Your task to perform on an android device: stop showing notifications on the lock screen Image 0: 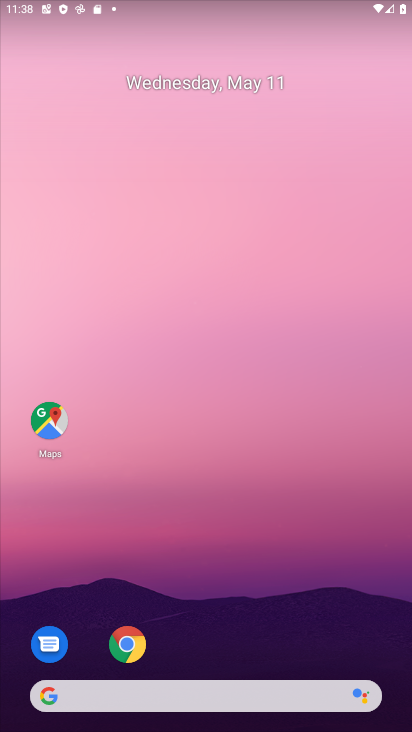
Step 0: drag from (273, 664) to (255, 155)
Your task to perform on an android device: stop showing notifications on the lock screen Image 1: 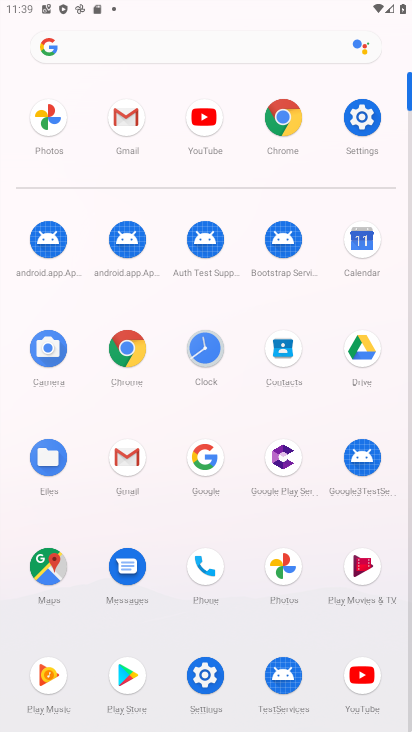
Step 1: click (353, 141)
Your task to perform on an android device: stop showing notifications on the lock screen Image 2: 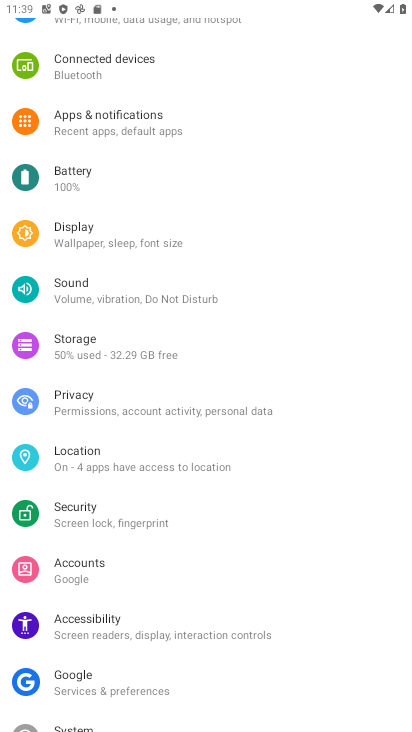
Step 2: click (178, 466)
Your task to perform on an android device: stop showing notifications on the lock screen Image 3: 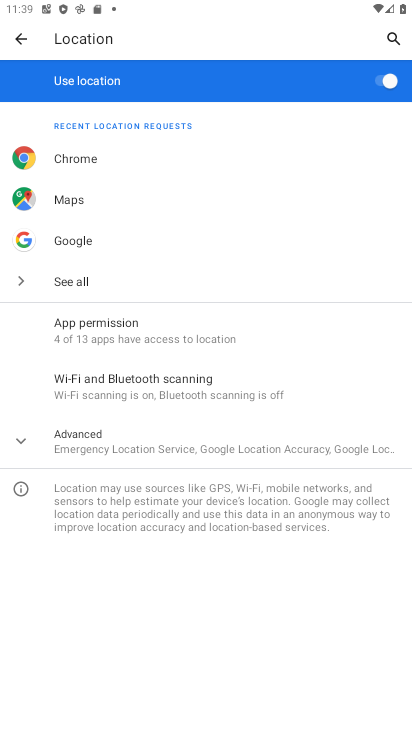
Step 3: click (143, 427)
Your task to perform on an android device: stop showing notifications on the lock screen Image 4: 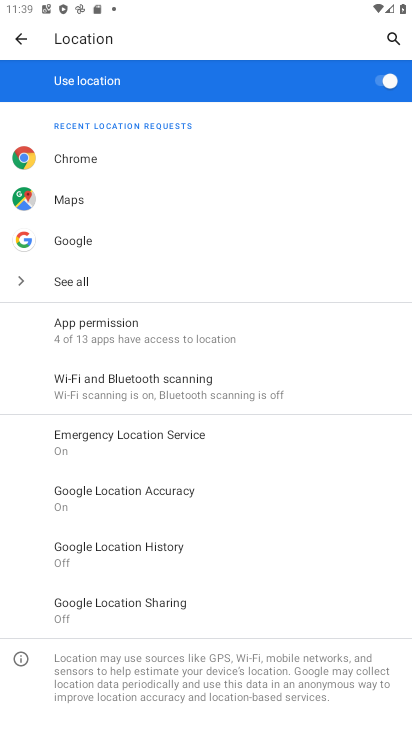
Step 4: click (27, 55)
Your task to perform on an android device: stop showing notifications on the lock screen Image 5: 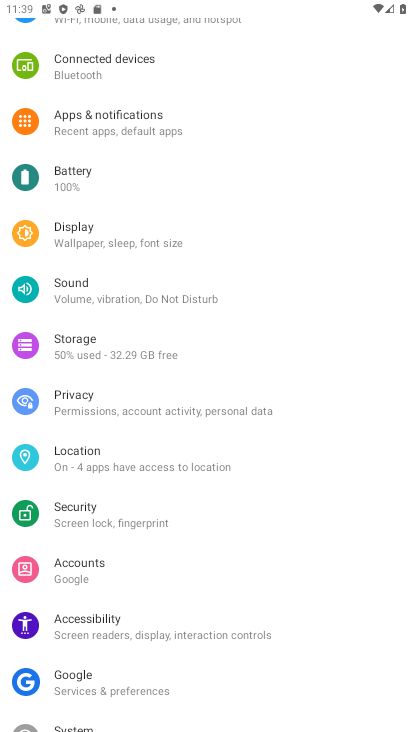
Step 5: press home button
Your task to perform on an android device: stop showing notifications on the lock screen Image 6: 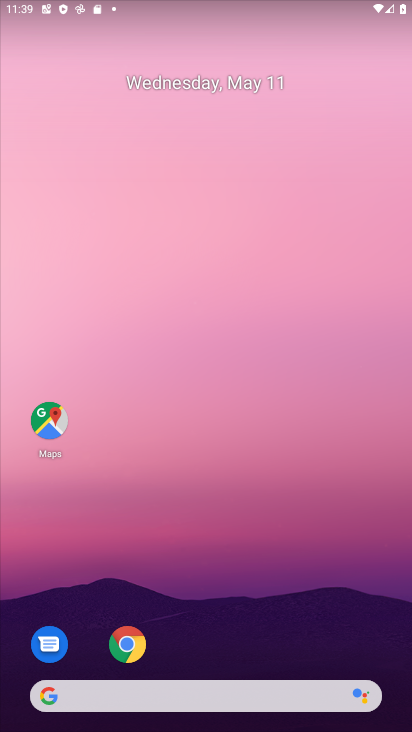
Step 6: drag from (252, 622) to (256, 148)
Your task to perform on an android device: stop showing notifications on the lock screen Image 7: 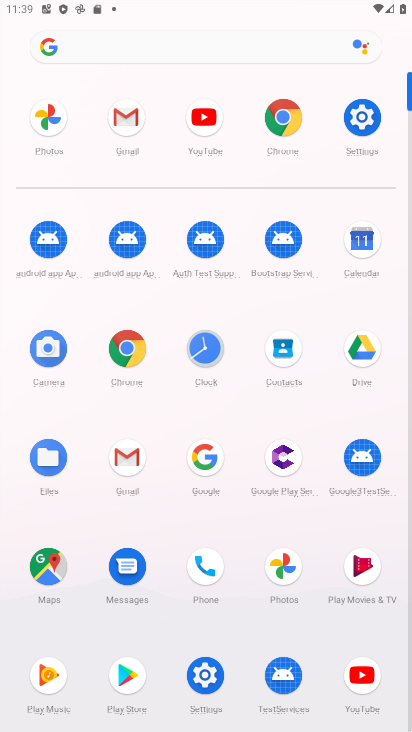
Step 7: click (368, 104)
Your task to perform on an android device: stop showing notifications on the lock screen Image 8: 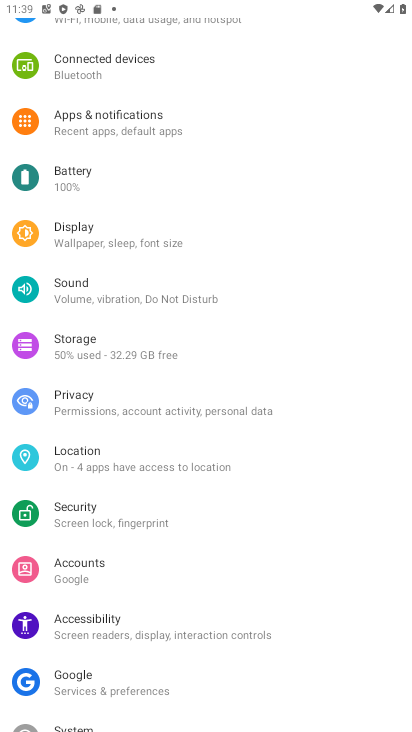
Step 8: click (174, 143)
Your task to perform on an android device: stop showing notifications on the lock screen Image 9: 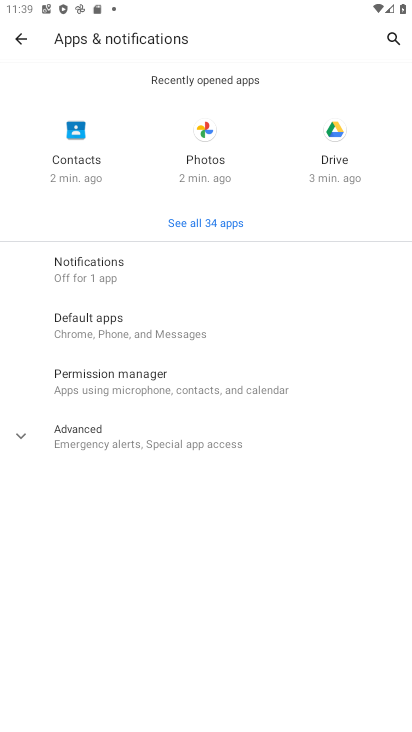
Step 9: click (147, 278)
Your task to perform on an android device: stop showing notifications on the lock screen Image 10: 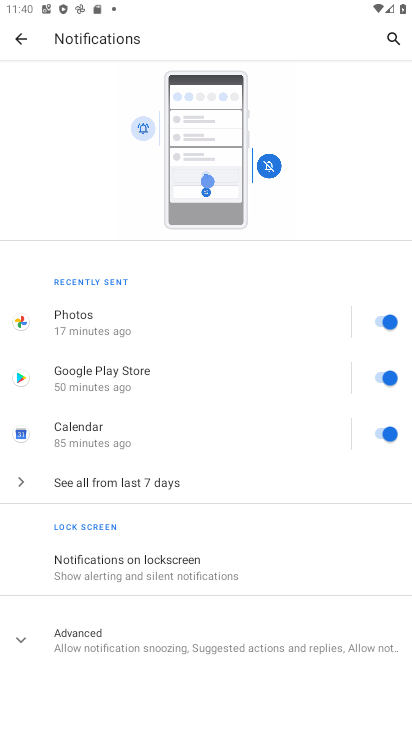
Step 10: click (161, 556)
Your task to perform on an android device: stop showing notifications on the lock screen Image 11: 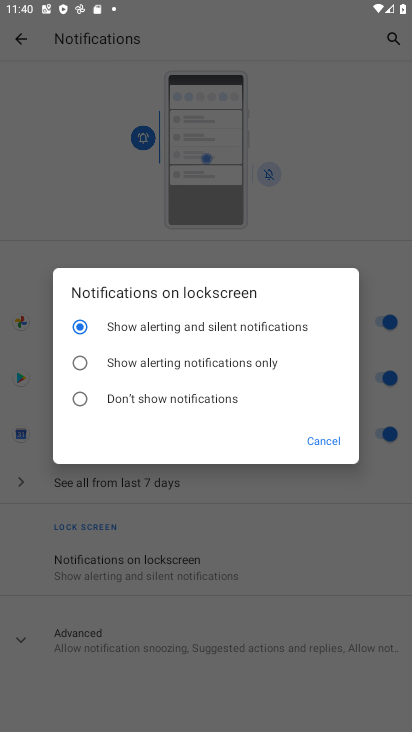
Step 11: click (227, 389)
Your task to perform on an android device: stop showing notifications on the lock screen Image 12: 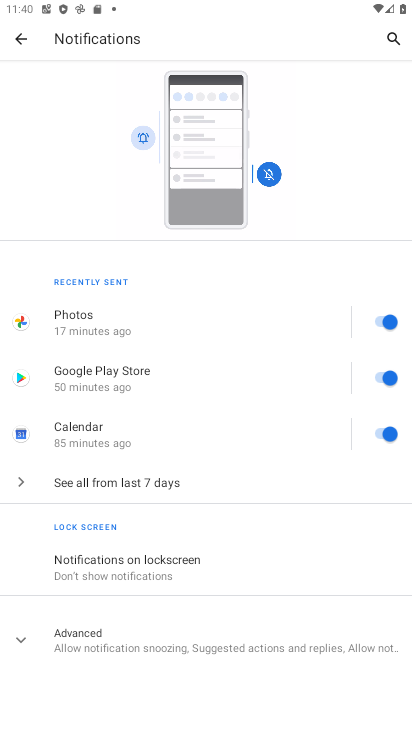
Step 12: task complete